Your task to perform on an android device: allow cookies in the chrome app Image 0: 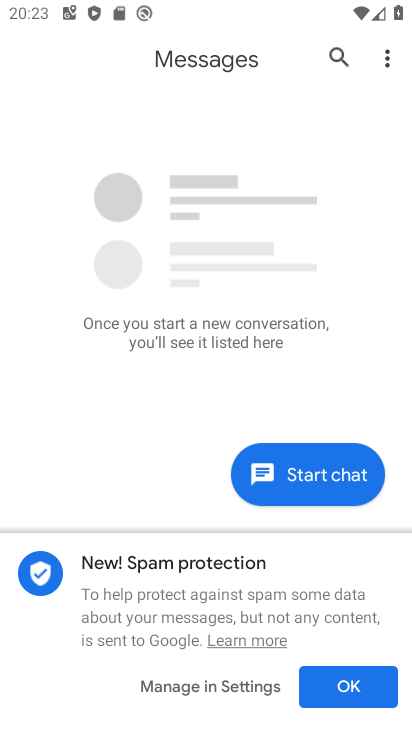
Step 0: press home button
Your task to perform on an android device: allow cookies in the chrome app Image 1: 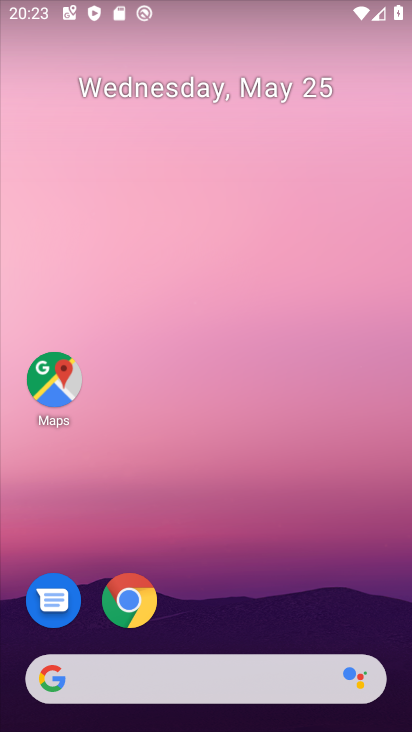
Step 1: drag from (270, 569) to (206, 163)
Your task to perform on an android device: allow cookies in the chrome app Image 2: 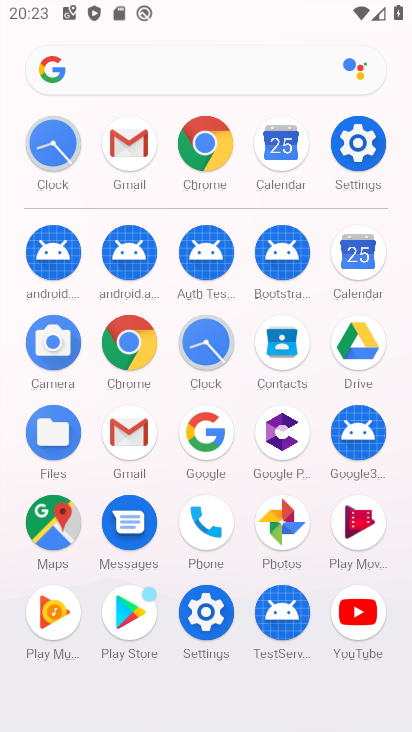
Step 2: click (121, 350)
Your task to perform on an android device: allow cookies in the chrome app Image 3: 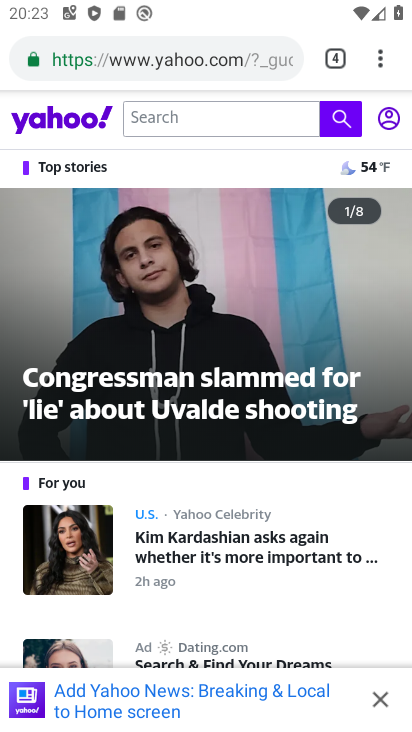
Step 3: drag from (376, 64) to (184, 628)
Your task to perform on an android device: allow cookies in the chrome app Image 4: 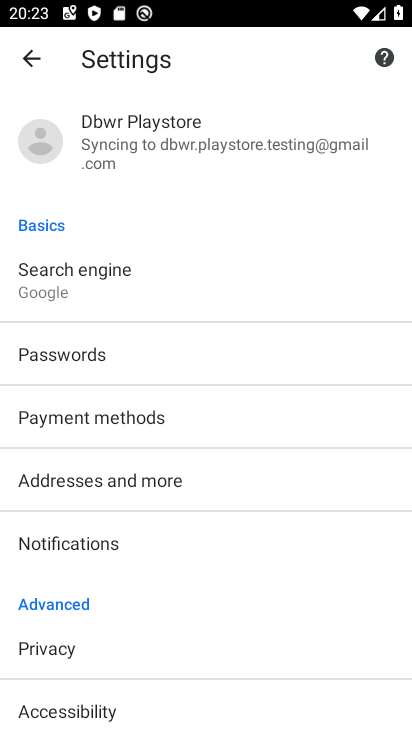
Step 4: drag from (184, 643) to (210, 369)
Your task to perform on an android device: allow cookies in the chrome app Image 5: 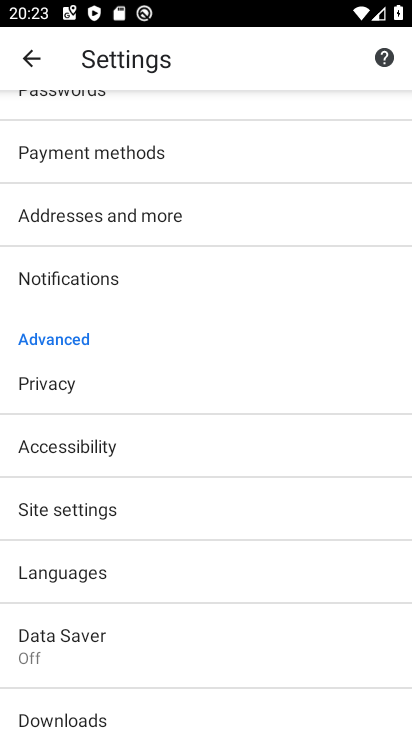
Step 5: click (112, 505)
Your task to perform on an android device: allow cookies in the chrome app Image 6: 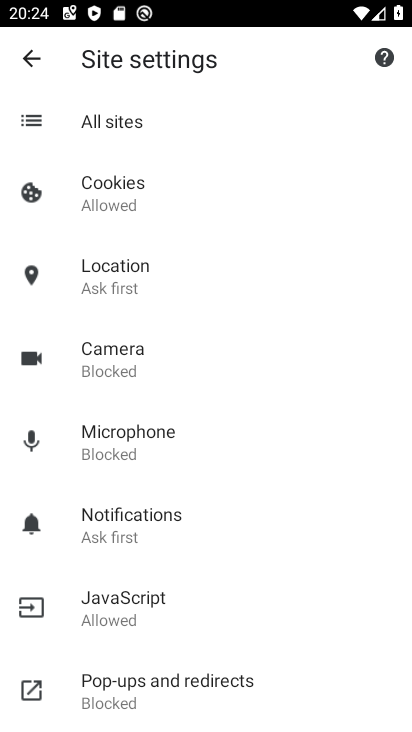
Step 6: click (128, 197)
Your task to perform on an android device: allow cookies in the chrome app Image 7: 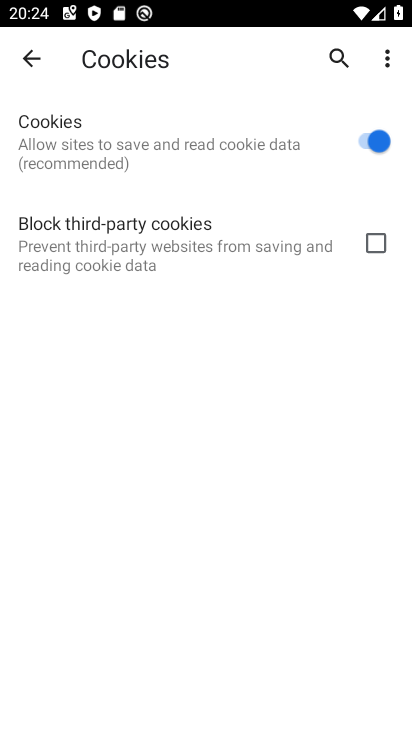
Step 7: task complete